Your task to perform on an android device: Show me productivity apps on the Play Store Image 0: 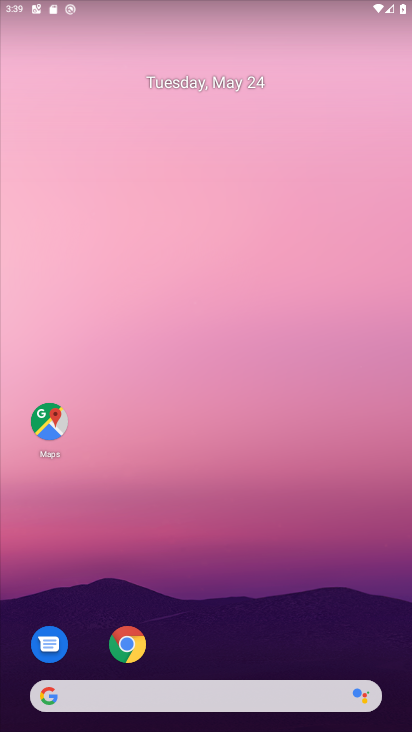
Step 0: drag from (332, 658) to (114, 19)
Your task to perform on an android device: Show me productivity apps on the Play Store Image 1: 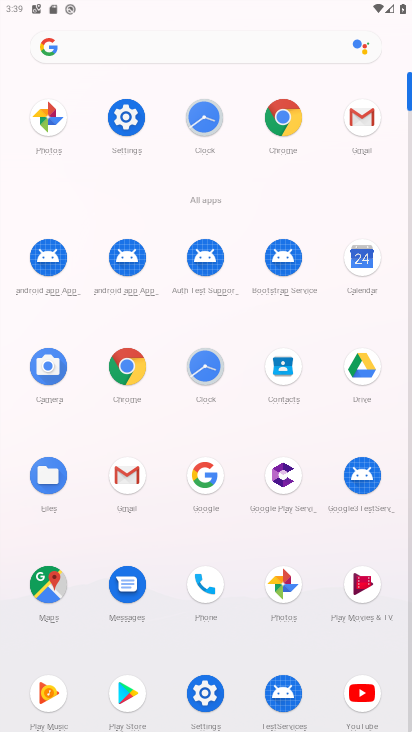
Step 1: click (123, 709)
Your task to perform on an android device: Show me productivity apps on the Play Store Image 2: 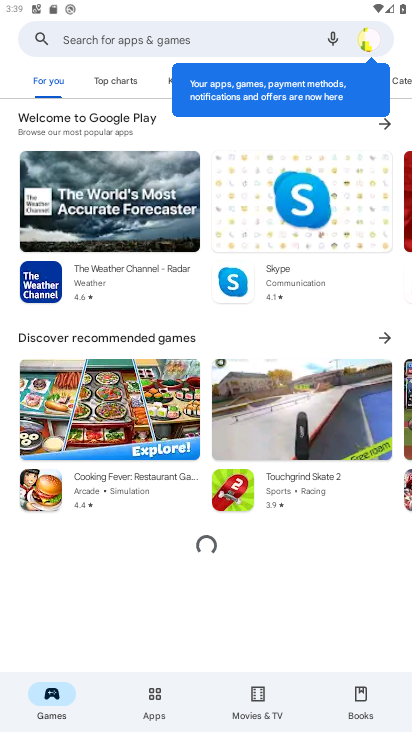
Step 2: click (143, 703)
Your task to perform on an android device: Show me productivity apps on the Play Store Image 3: 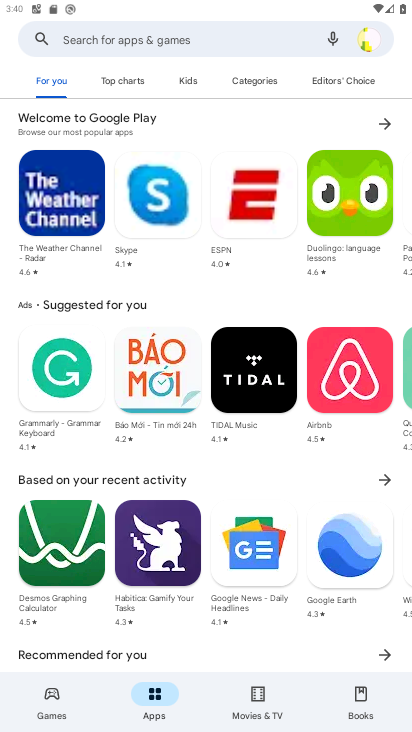
Step 3: click (104, 86)
Your task to perform on an android device: Show me productivity apps on the Play Store Image 4: 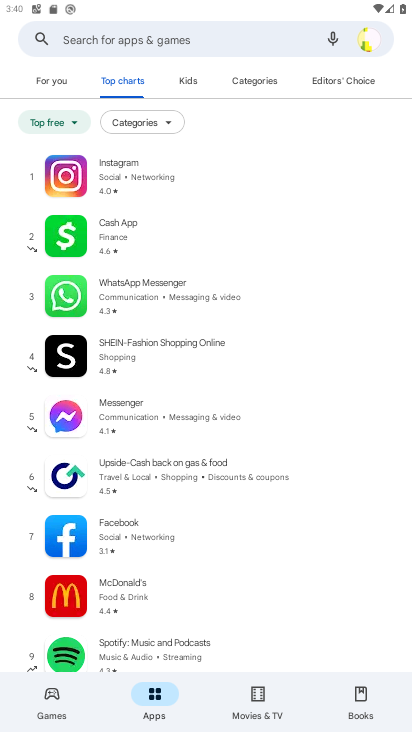
Step 4: click (135, 120)
Your task to perform on an android device: Show me productivity apps on the Play Store Image 5: 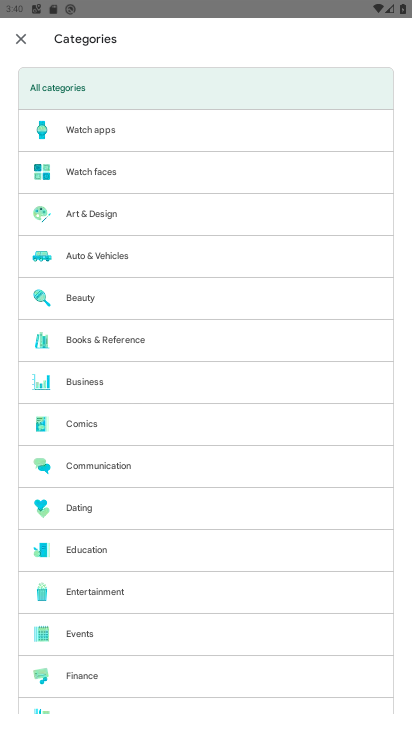
Step 5: drag from (208, 652) to (180, 180)
Your task to perform on an android device: Show me productivity apps on the Play Store Image 6: 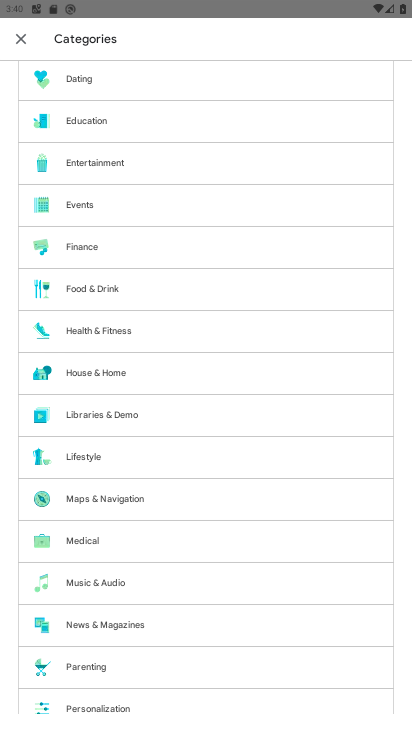
Step 6: drag from (250, 571) to (216, 239)
Your task to perform on an android device: Show me productivity apps on the Play Store Image 7: 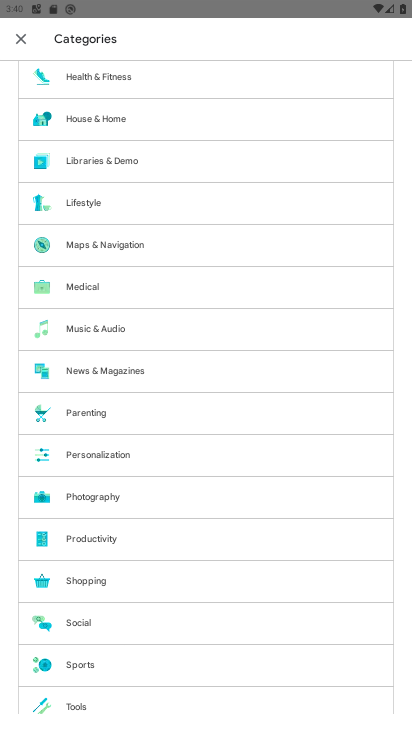
Step 7: drag from (230, 597) to (210, 396)
Your task to perform on an android device: Show me productivity apps on the Play Store Image 8: 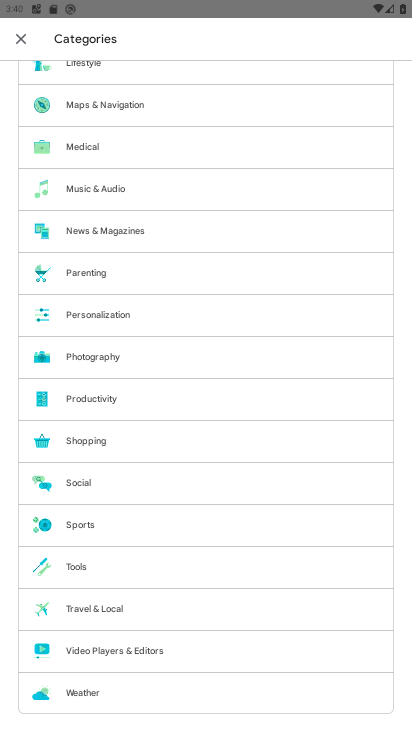
Step 8: drag from (247, 643) to (187, 247)
Your task to perform on an android device: Show me productivity apps on the Play Store Image 9: 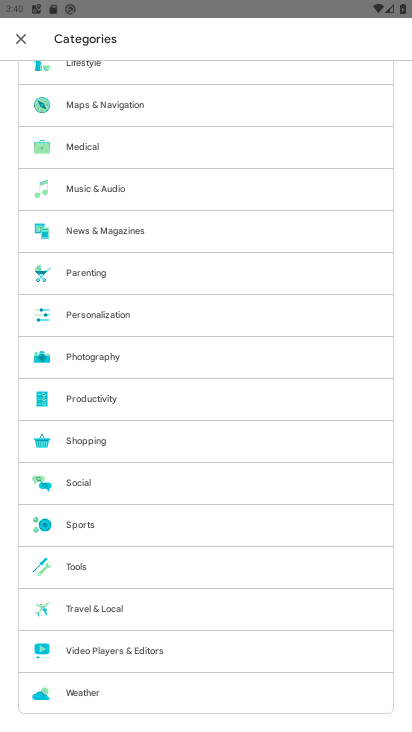
Step 9: click (106, 401)
Your task to perform on an android device: Show me productivity apps on the Play Store Image 10: 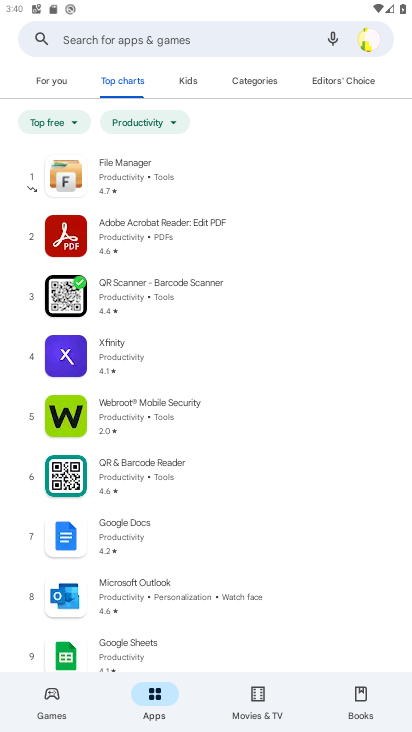
Step 10: task complete